Your task to perform on an android device: open chrome and create a bookmark for the current page Image 0: 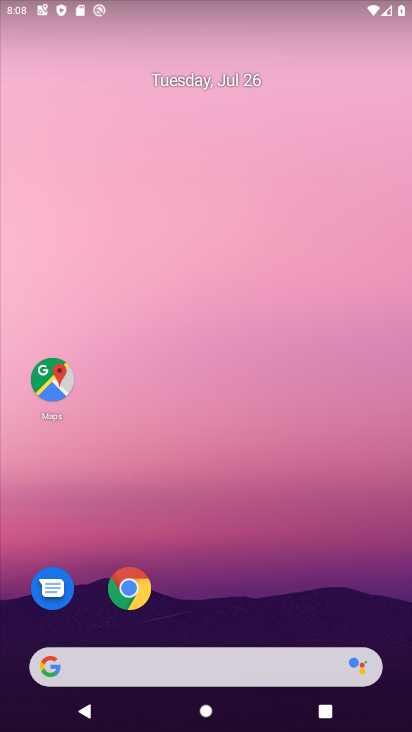
Step 0: drag from (274, 489) to (232, 167)
Your task to perform on an android device: open chrome and create a bookmark for the current page Image 1: 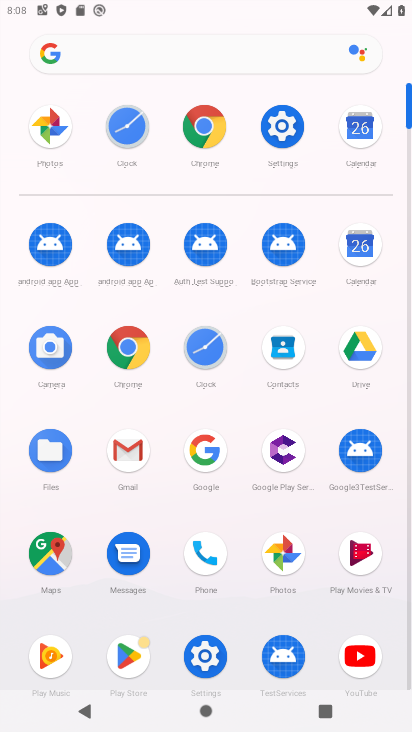
Step 1: click (124, 344)
Your task to perform on an android device: open chrome and create a bookmark for the current page Image 2: 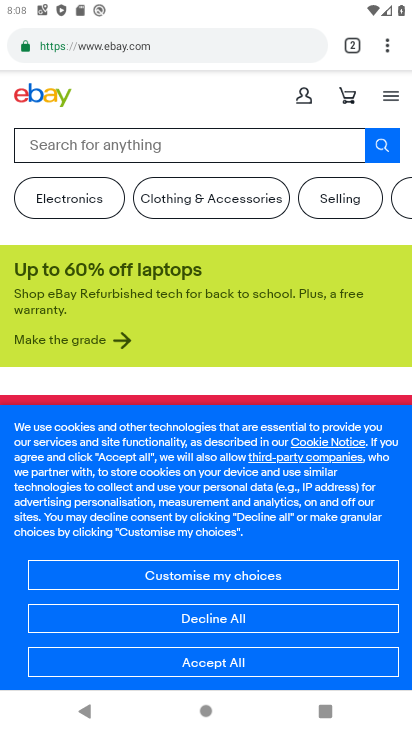
Step 2: click (388, 44)
Your task to perform on an android device: open chrome and create a bookmark for the current page Image 3: 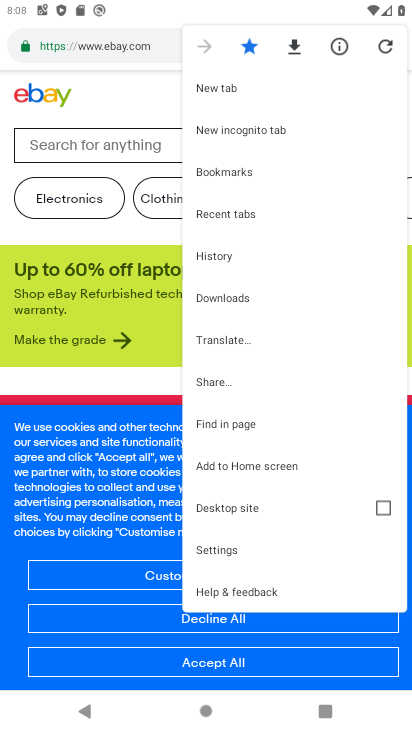
Step 3: click (242, 177)
Your task to perform on an android device: open chrome and create a bookmark for the current page Image 4: 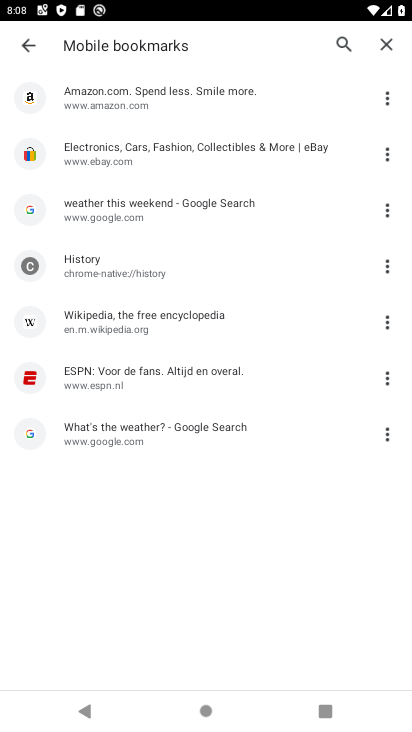
Step 4: task complete